Your task to perform on an android device: change timer sound Image 0: 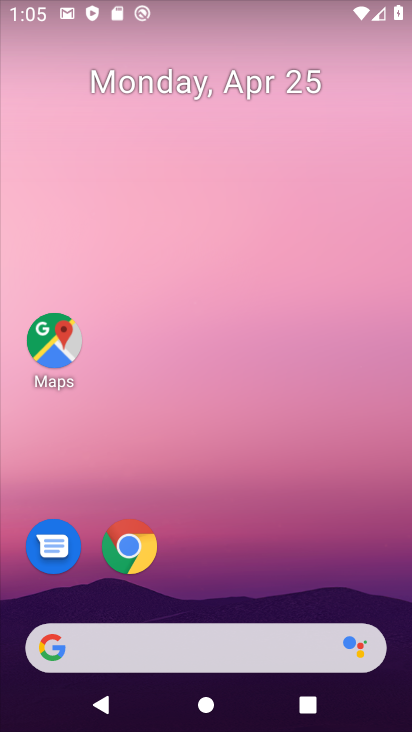
Step 0: drag from (353, 580) to (343, 66)
Your task to perform on an android device: change timer sound Image 1: 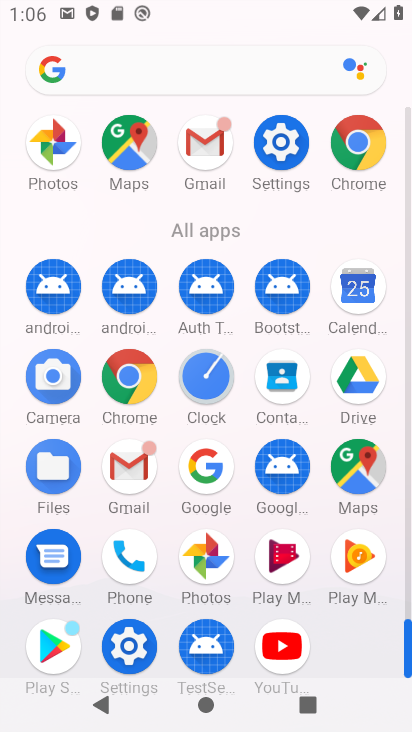
Step 1: click (204, 390)
Your task to perform on an android device: change timer sound Image 2: 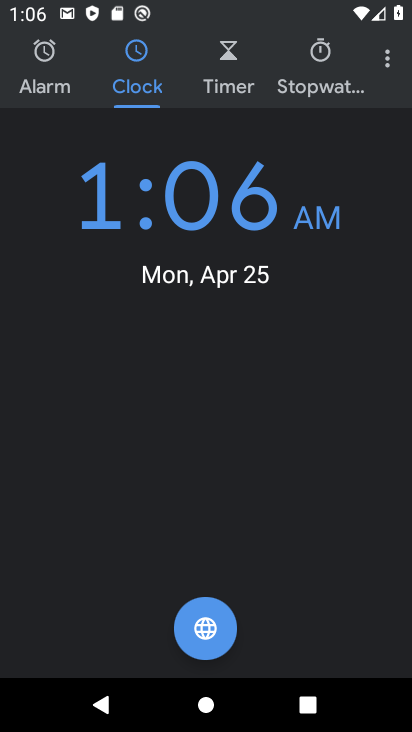
Step 2: click (388, 65)
Your task to perform on an android device: change timer sound Image 3: 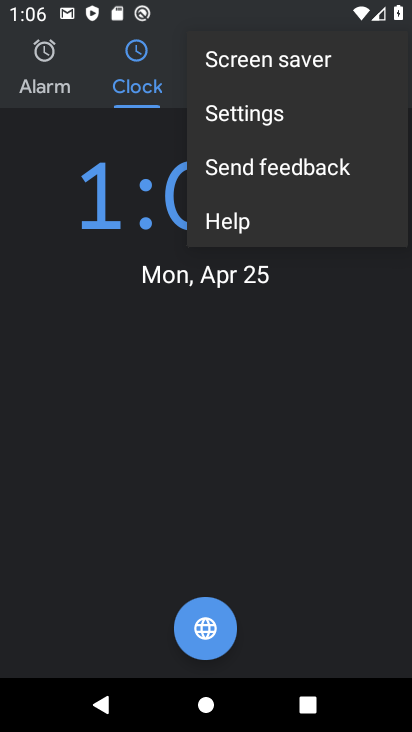
Step 3: click (241, 118)
Your task to perform on an android device: change timer sound Image 4: 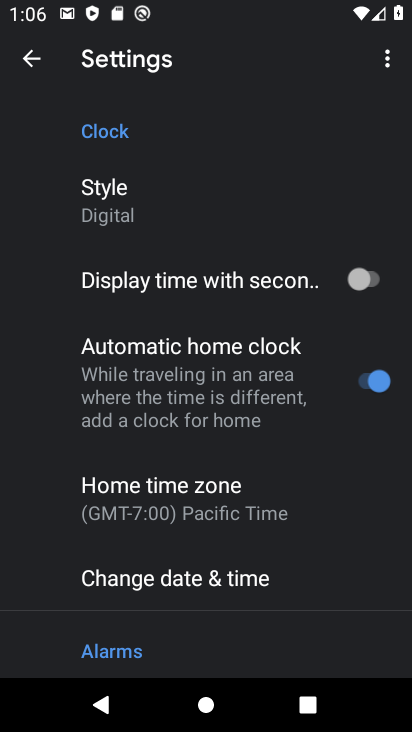
Step 4: drag from (315, 493) to (319, 348)
Your task to perform on an android device: change timer sound Image 5: 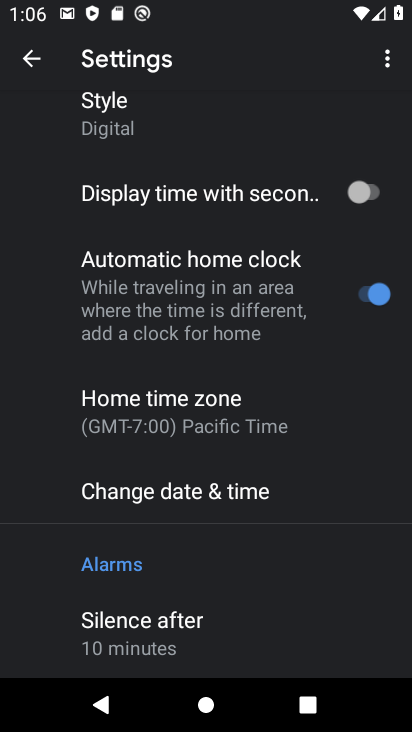
Step 5: drag from (325, 538) to (324, 366)
Your task to perform on an android device: change timer sound Image 6: 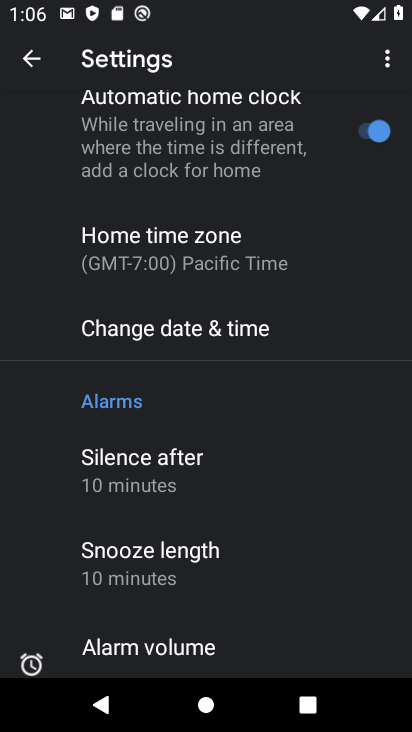
Step 6: drag from (314, 573) to (308, 403)
Your task to perform on an android device: change timer sound Image 7: 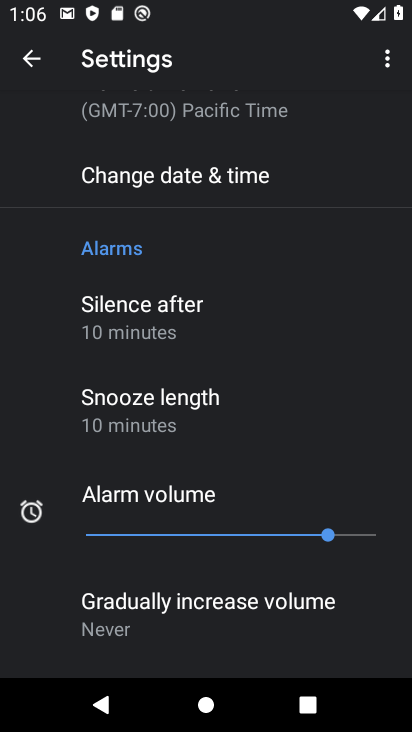
Step 7: drag from (311, 492) to (312, 368)
Your task to perform on an android device: change timer sound Image 8: 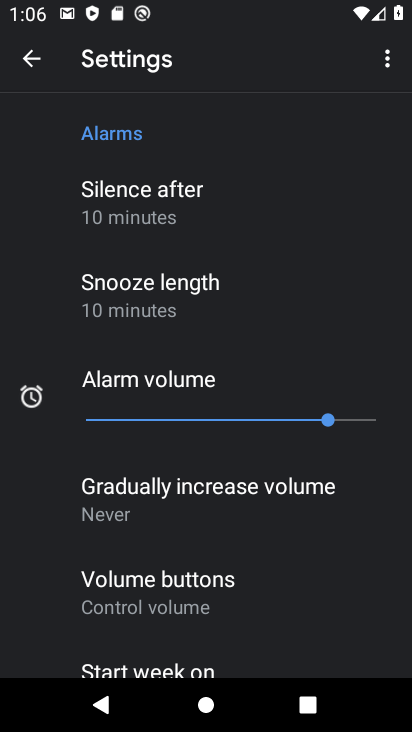
Step 8: drag from (327, 569) to (324, 439)
Your task to perform on an android device: change timer sound Image 9: 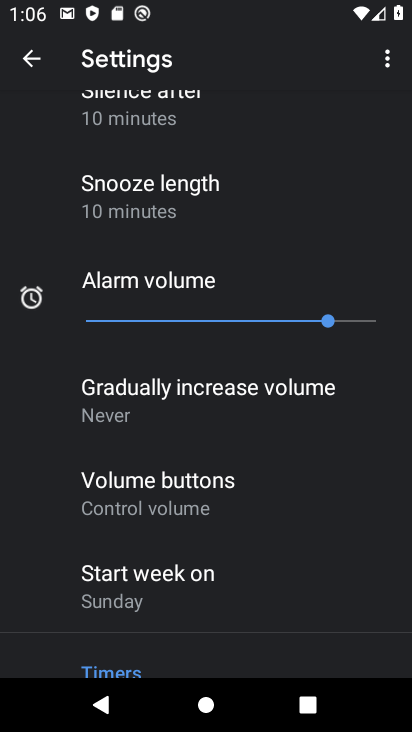
Step 9: drag from (332, 586) to (329, 440)
Your task to perform on an android device: change timer sound Image 10: 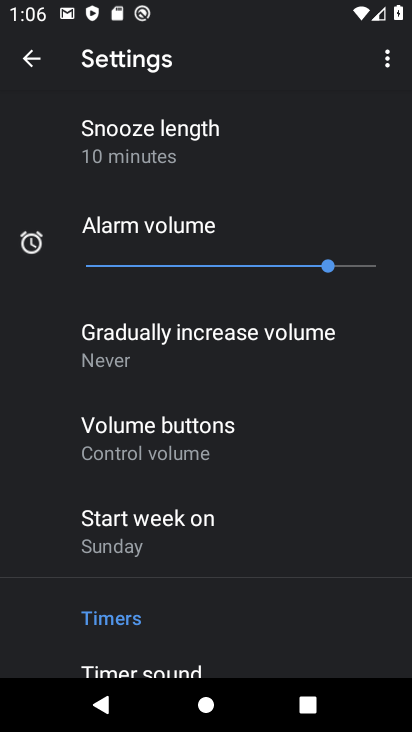
Step 10: drag from (327, 596) to (331, 482)
Your task to perform on an android device: change timer sound Image 11: 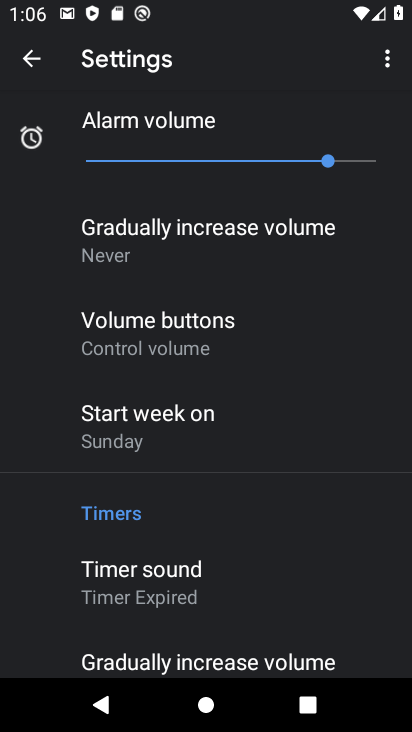
Step 11: drag from (334, 548) to (316, 402)
Your task to perform on an android device: change timer sound Image 12: 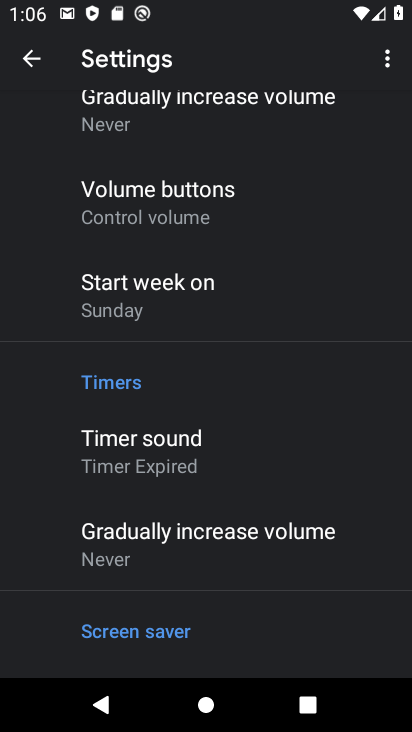
Step 12: click (168, 450)
Your task to perform on an android device: change timer sound Image 13: 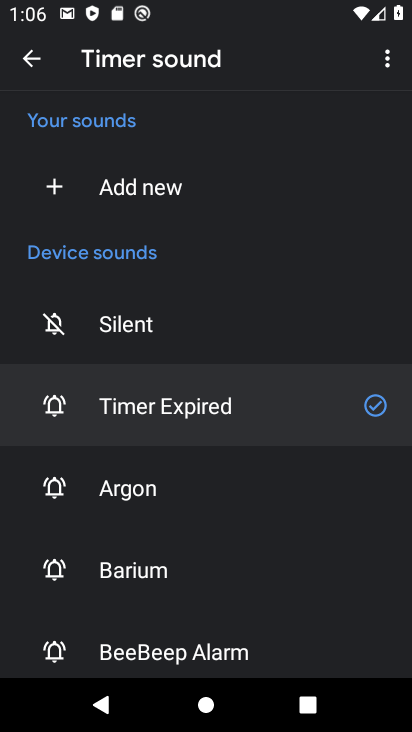
Step 13: click (146, 496)
Your task to perform on an android device: change timer sound Image 14: 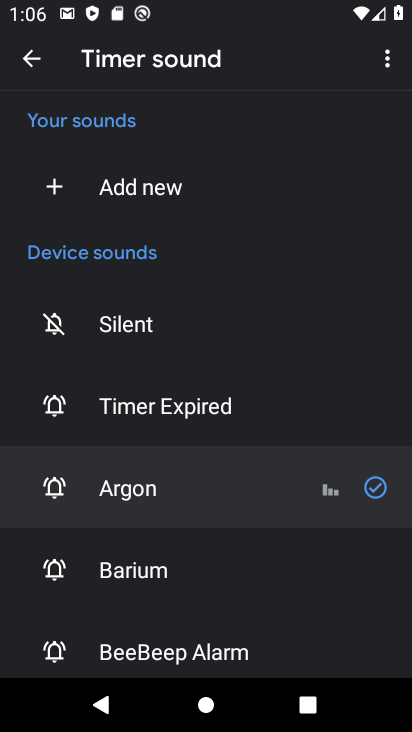
Step 14: task complete